Your task to perform on an android device: turn pop-ups on in chrome Image 0: 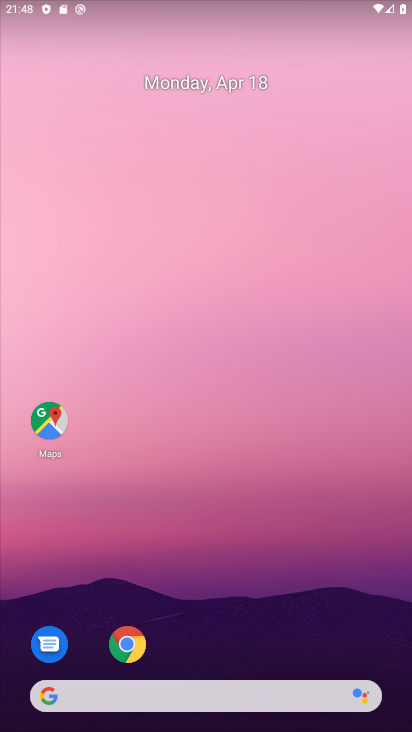
Step 0: click (133, 644)
Your task to perform on an android device: turn pop-ups on in chrome Image 1: 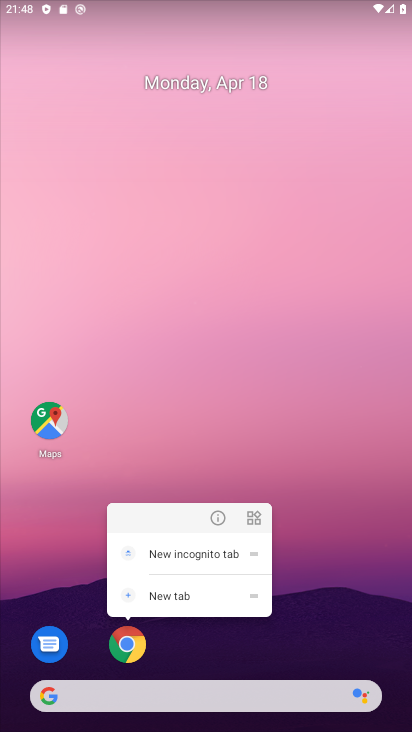
Step 1: click (140, 636)
Your task to perform on an android device: turn pop-ups on in chrome Image 2: 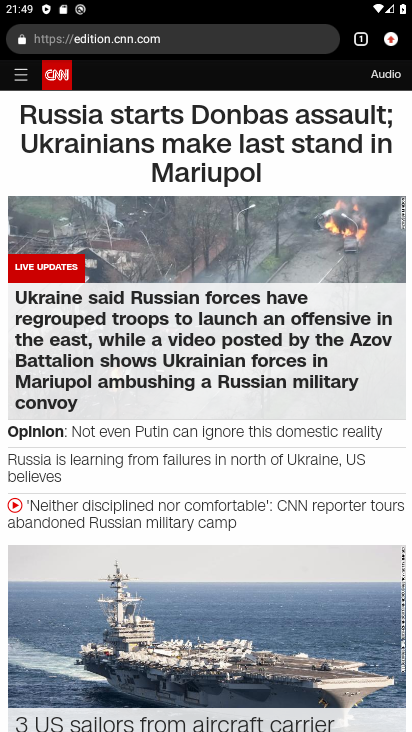
Step 2: click (395, 45)
Your task to perform on an android device: turn pop-ups on in chrome Image 3: 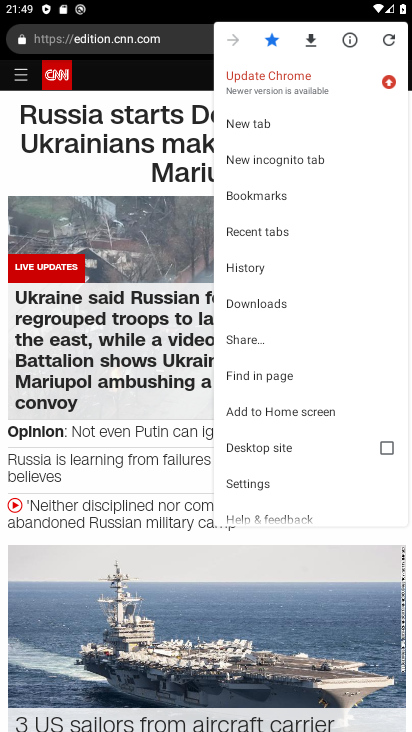
Step 3: click (266, 486)
Your task to perform on an android device: turn pop-ups on in chrome Image 4: 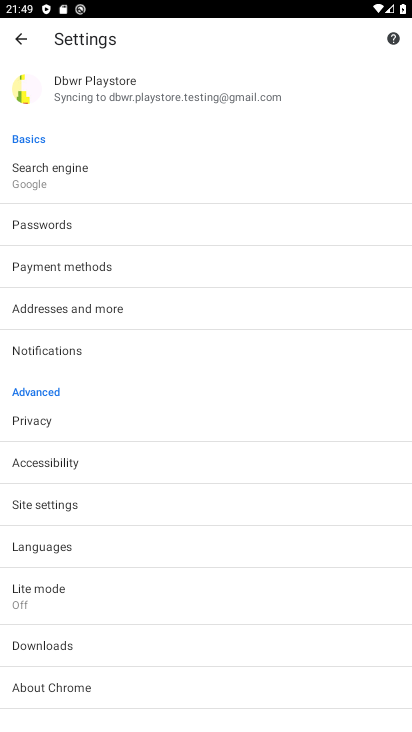
Step 4: click (83, 507)
Your task to perform on an android device: turn pop-ups on in chrome Image 5: 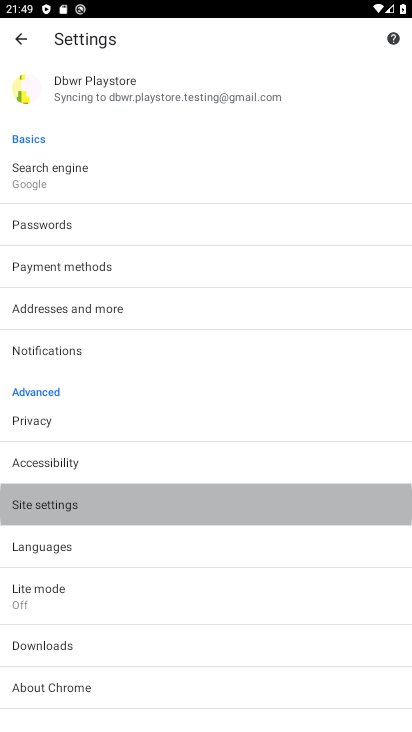
Step 5: click (83, 507)
Your task to perform on an android device: turn pop-ups on in chrome Image 6: 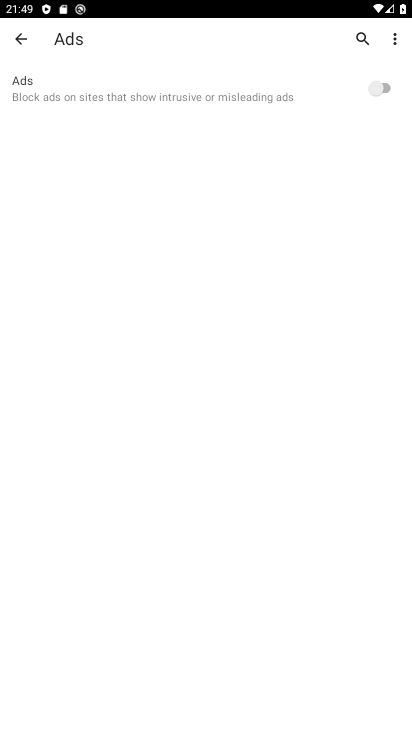
Step 6: click (19, 44)
Your task to perform on an android device: turn pop-ups on in chrome Image 7: 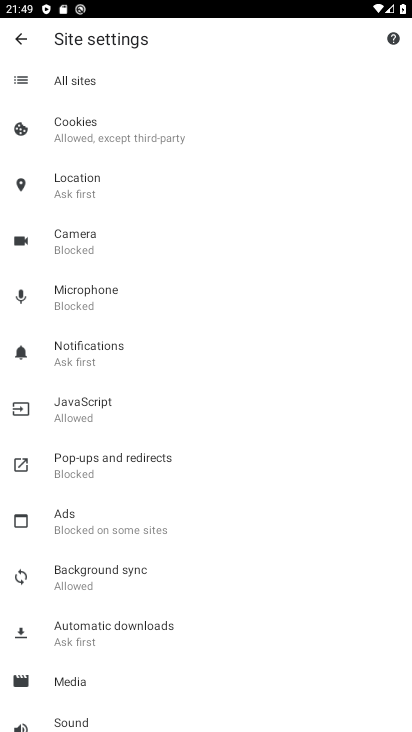
Step 7: click (114, 458)
Your task to perform on an android device: turn pop-ups on in chrome Image 8: 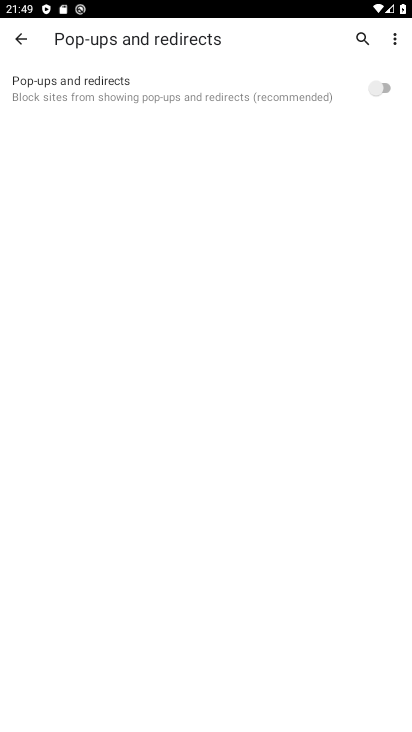
Step 8: click (384, 84)
Your task to perform on an android device: turn pop-ups on in chrome Image 9: 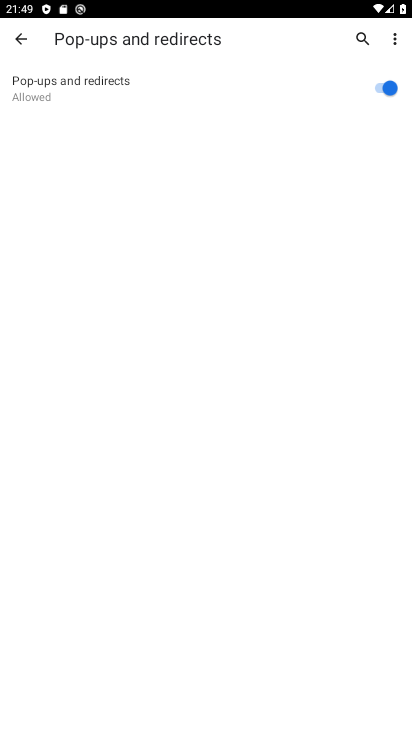
Step 9: task complete